Your task to perform on an android device: set the stopwatch Image 0: 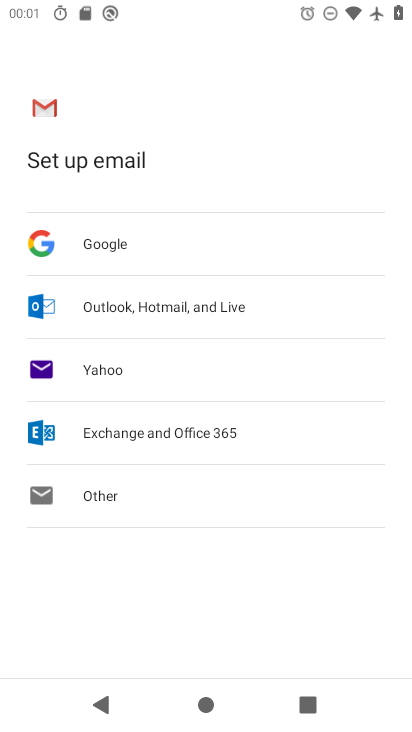
Step 0: press home button
Your task to perform on an android device: set the stopwatch Image 1: 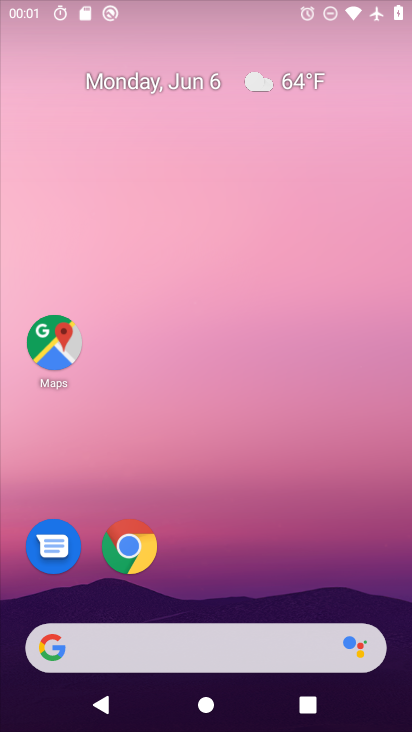
Step 1: drag from (216, 571) to (315, 50)
Your task to perform on an android device: set the stopwatch Image 2: 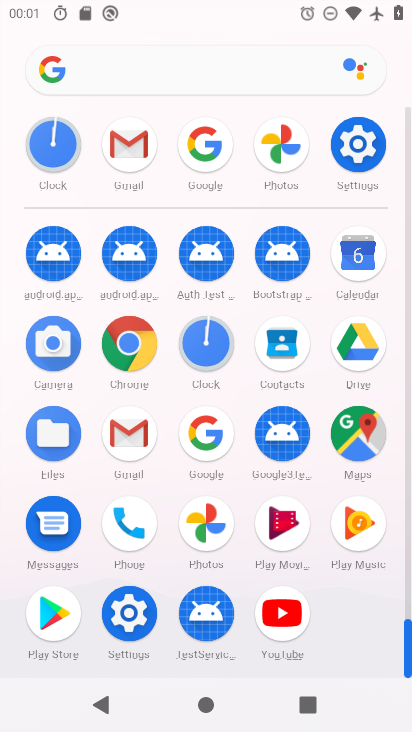
Step 2: click (203, 326)
Your task to perform on an android device: set the stopwatch Image 3: 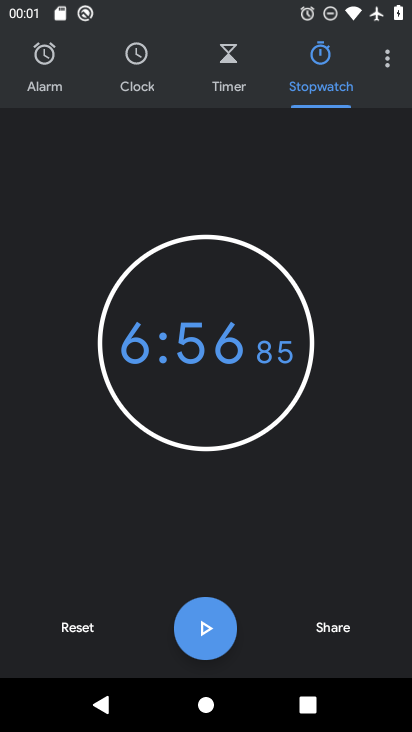
Step 3: click (205, 619)
Your task to perform on an android device: set the stopwatch Image 4: 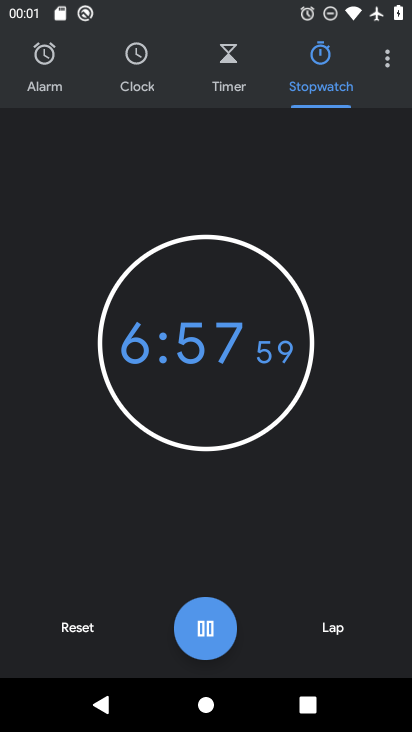
Step 4: task complete